Your task to perform on an android device: Open Chrome and go to settings Image 0: 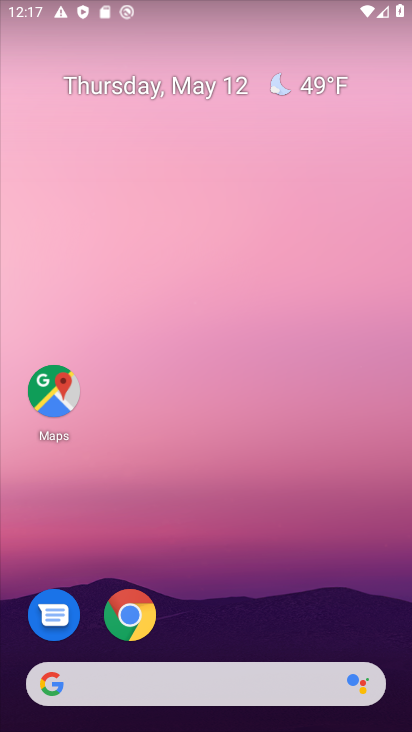
Step 0: drag from (249, 709) to (201, 250)
Your task to perform on an android device: Open Chrome and go to settings Image 1: 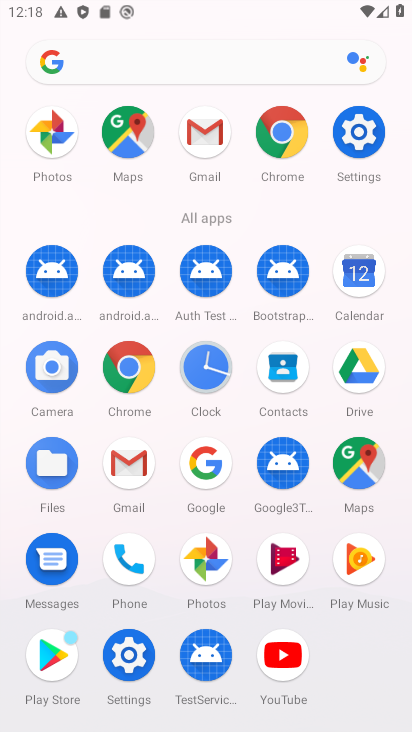
Step 1: click (117, 373)
Your task to perform on an android device: Open Chrome and go to settings Image 2: 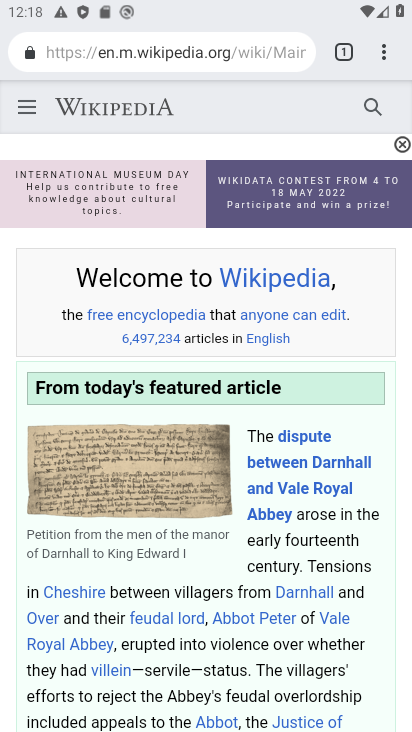
Step 2: click (373, 60)
Your task to perform on an android device: Open Chrome and go to settings Image 3: 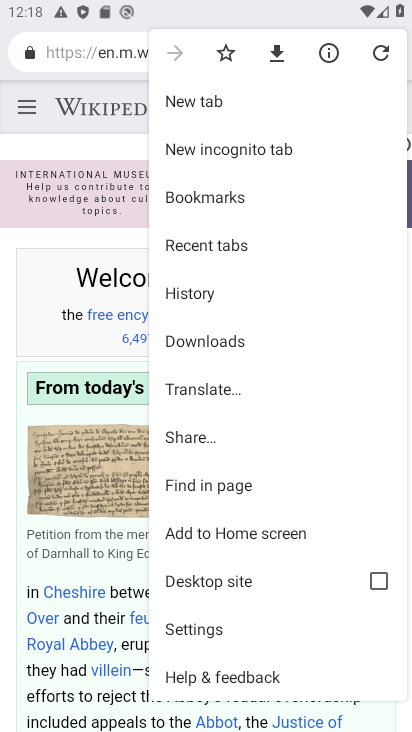
Step 3: click (176, 625)
Your task to perform on an android device: Open Chrome and go to settings Image 4: 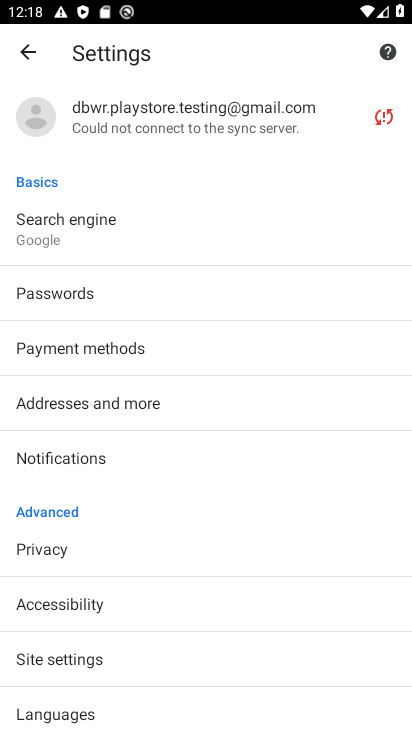
Step 4: task complete